Your task to perform on an android device: toggle notifications settings in the gmail app Image 0: 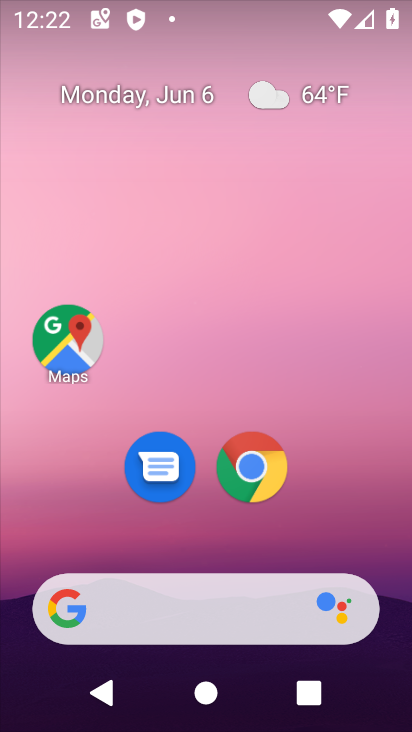
Step 0: drag from (328, 526) to (249, 42)
Your task to perform on an android device: toggle notifications settings in the gmail app Image 1: 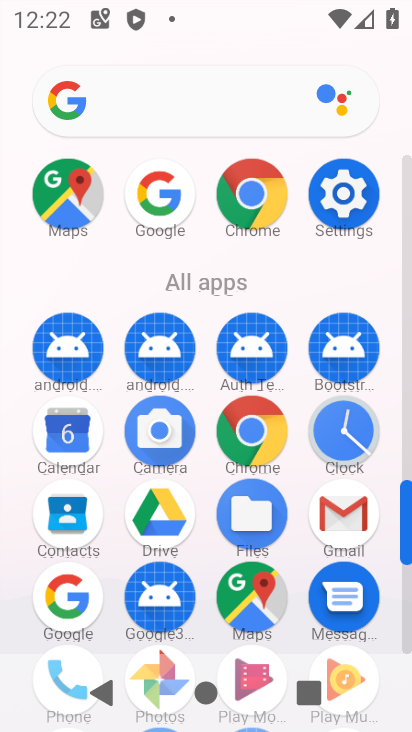
Step 1: click (343, 510)
Your task to perform on an android device: toggle notifications settings in the gmail app Image 2: 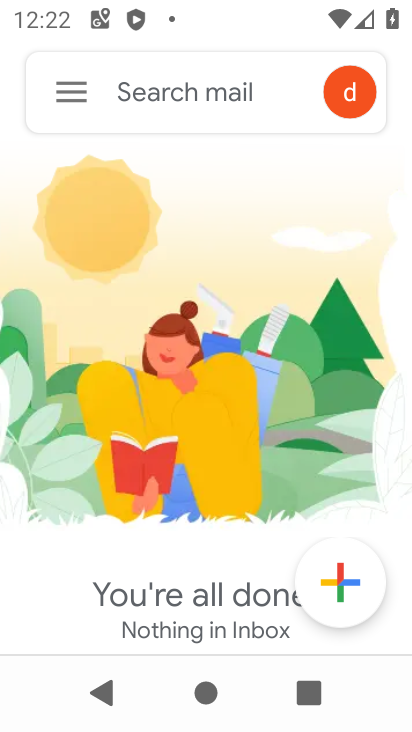
Step 2: click (71, 101)
Your task to perform on an android device: toggle notifications settings in the gmail app Image 3: 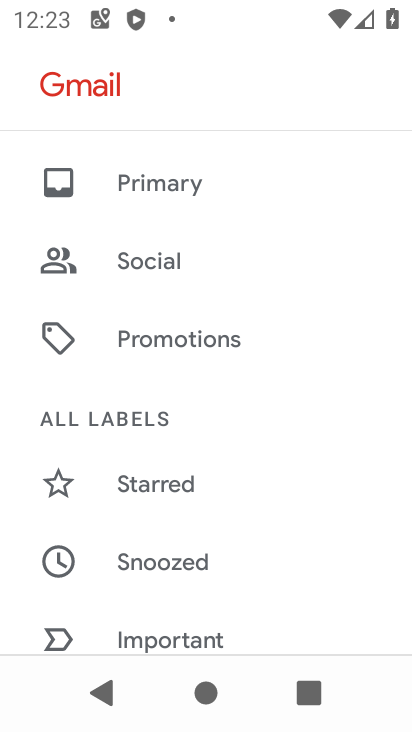
Step 3: drag from (212, 531) to (248, 432)
Your task to perform on an android device: toggle notifications settings in the gmail app Image 4: 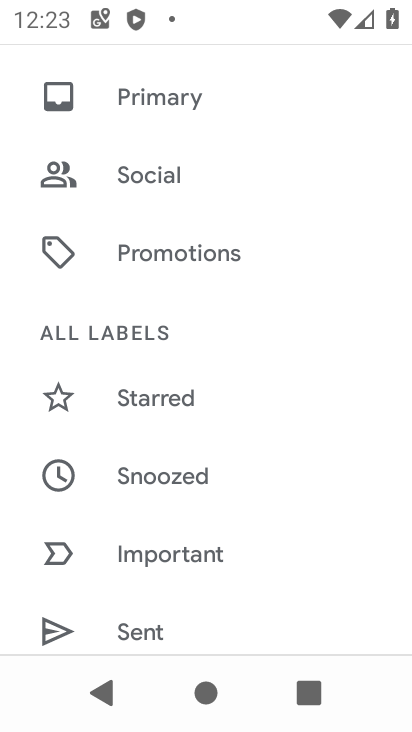
Step 4: drag from (214, 516) to (264, 424)
Your task to perform on an android device: toggle notifications settings in the gmail app Image 5: 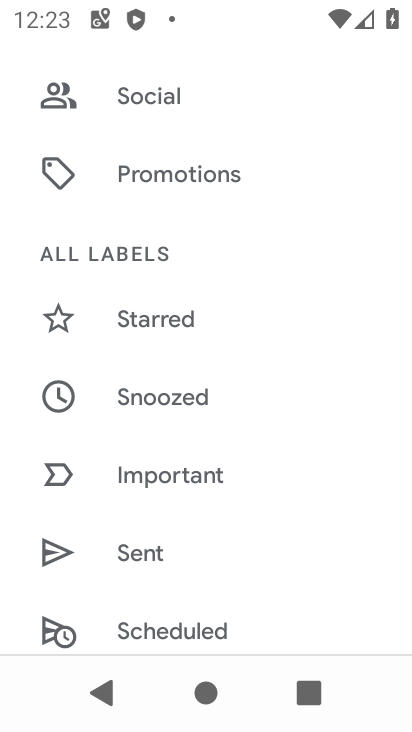
Step 5: drag from (183, 510) to (256, 415)
Your task to perform on an android device: toggle notifications settings in the gmail app Image 6: 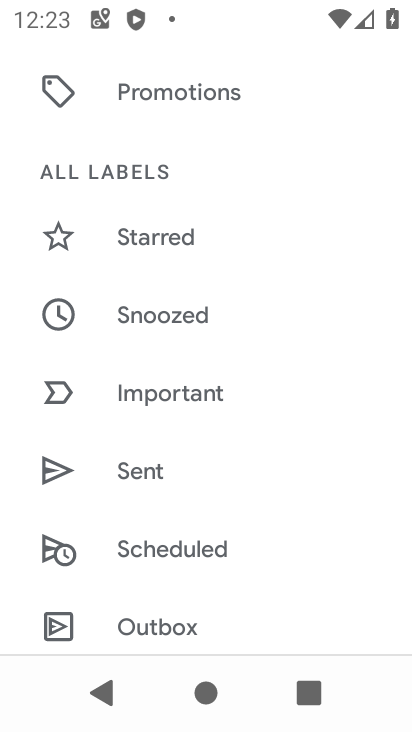
Step 6: drag from (183, 492) to (225, 422)
Your task to perform on an android device: toggle notifications settings in the gmail app Image 7: 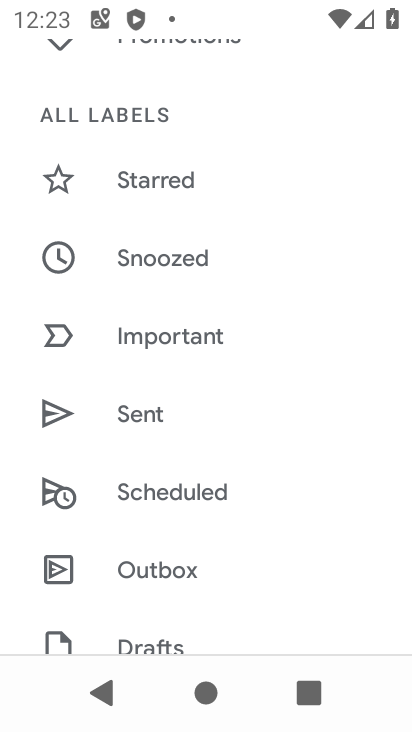
Step 7: drag from (162, 518) to (218, 422)
Your task to perform on an android device: toggle notifications settings in the gmail app Image 8: 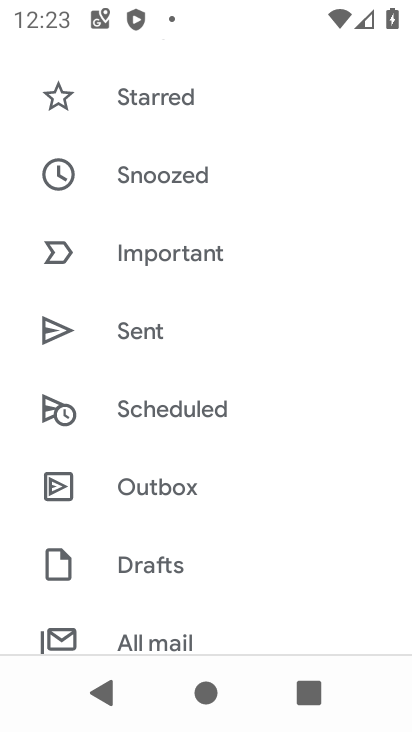
Step 8: drag from (151, 522) to (224, 421)
Your task to perform on an android device: toggle notifications settings in the gmail app Image 9: 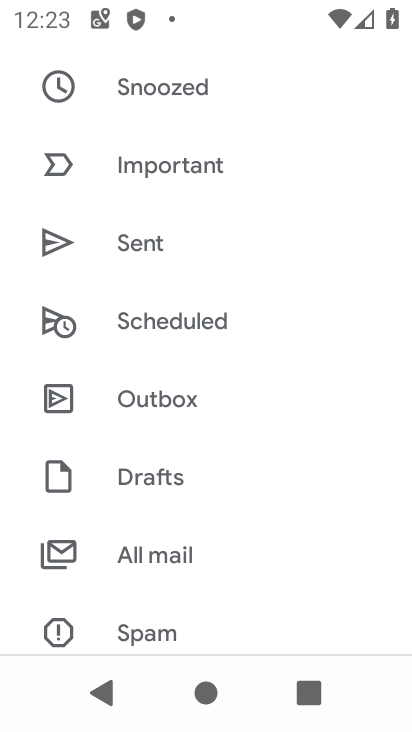
Step 9: drag from (149, 501) to (207, 406)
Your task to perform on an android device: toggle notifications settings in the gmail app Image 10: 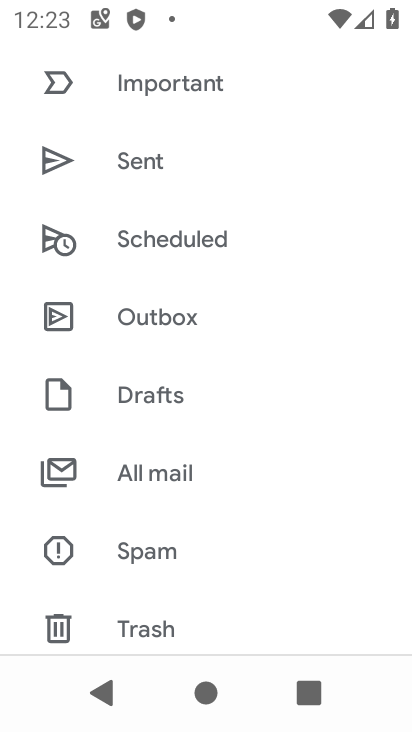
Step 10: drag from (177, 504) to (253, 417)
Your task to perform on an android device: toggle notifications settings in the gmail app Image 11: 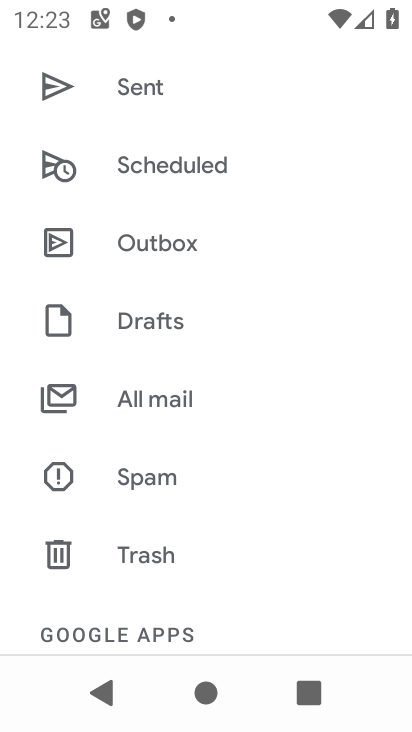
Step 11: drag from (191, 481) to (215, 419)
Your task to perform on an android device: toggle notifications settings in the gmail app Image 12: 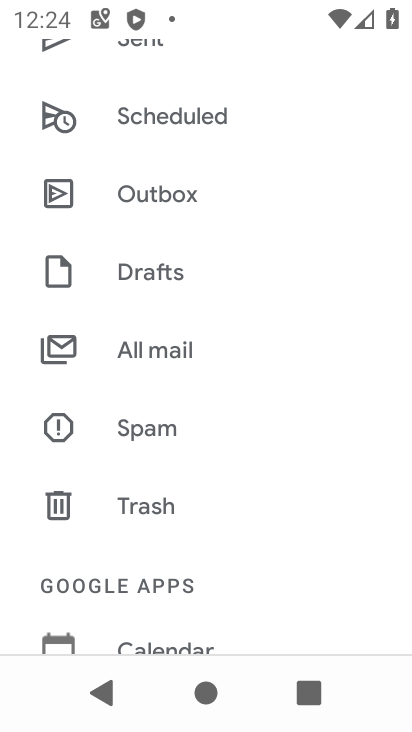
Step 12: drag from (157, 543) to (195, 375)
Your task to perform on an android device: toggle notifications settings in the gmail app Image 13: 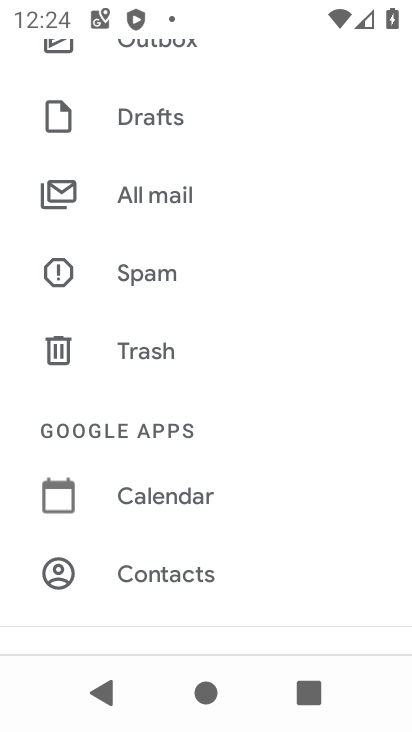
Step 13: drag from (167, 539) to (246, 403)
Your task to perform on an android device: toggle notifications settings in the gmail app Image 14: 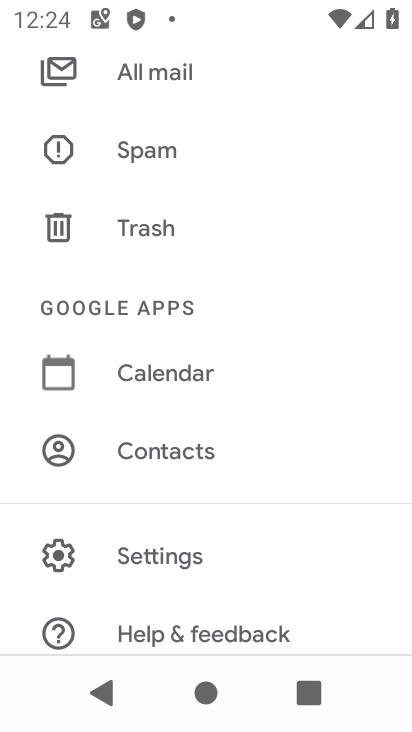
Step 14: click (182, 556)
Your task to perform on an android device: toggle notifications settings in the gmail app Image 15: 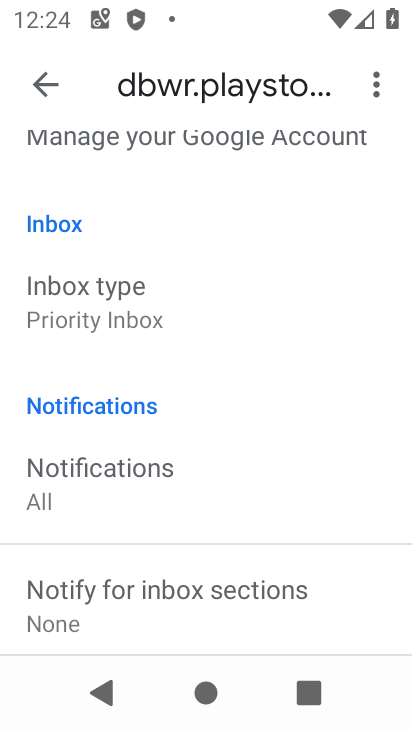
Step 15: drag from (129, 489) to (200, 393)
Your task to perform on an android device: toggle notifications settings in the gmail app Image 16: 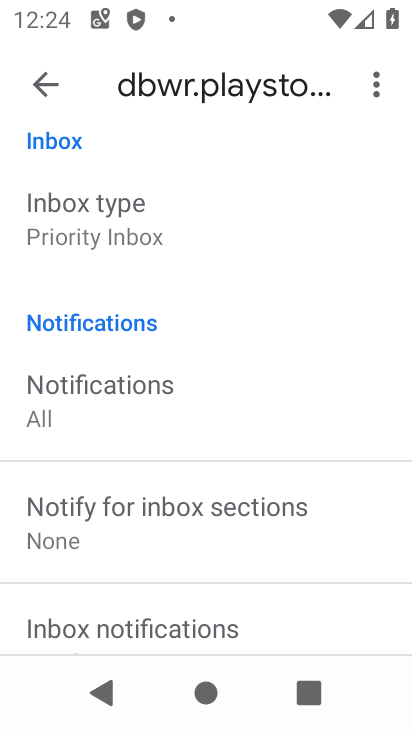
Step 16: drag from (112, 551) to (222, 431)
Your task to perform on an android device: toggle notifications settings in the gmail app Image 17: 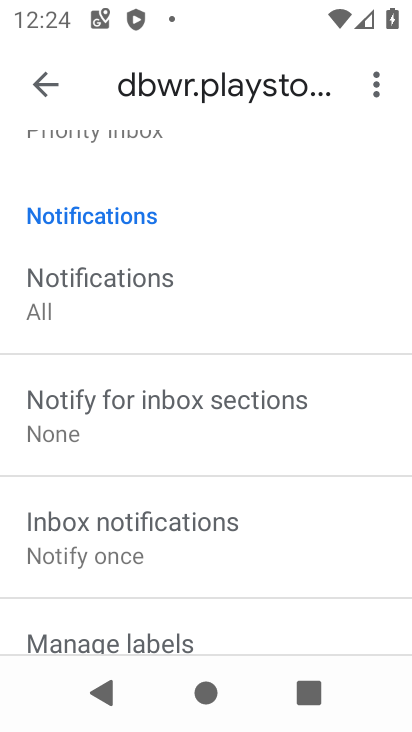
Step 17: drag from (178, 564) to (251, 449)
Your task to perform on an android device: toggle notifications settings in the gmail app Image 18: 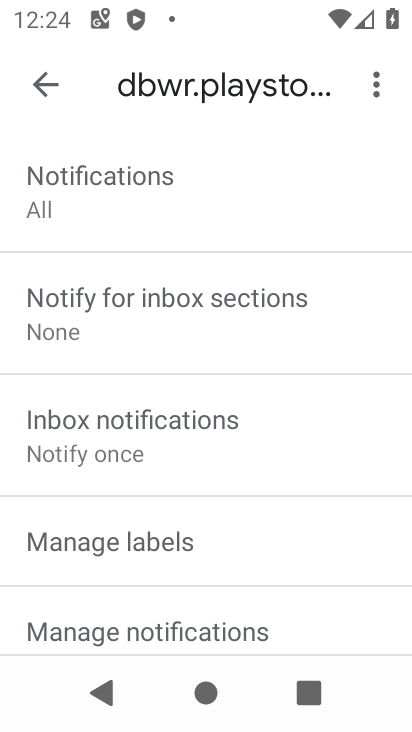
Step 18: drag from (187, 562) to (298, 432)
Your task to perform on an android device: toggle notifications settings in the gmail app Image 19: 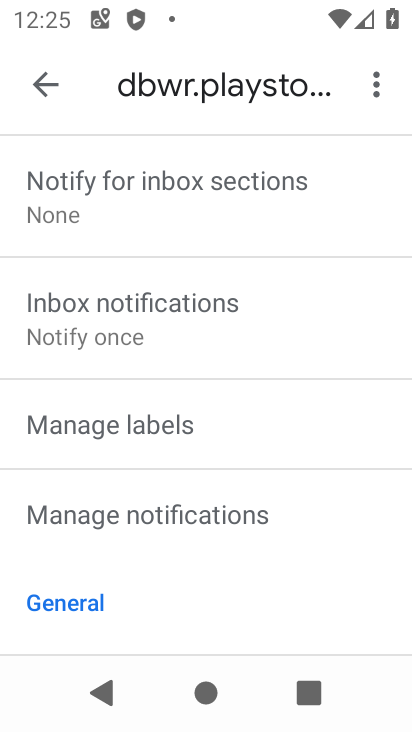
Step 19: click (200, 524)
Your task to perform on an android device: toggle notifications settings in the gmail app Image 20: 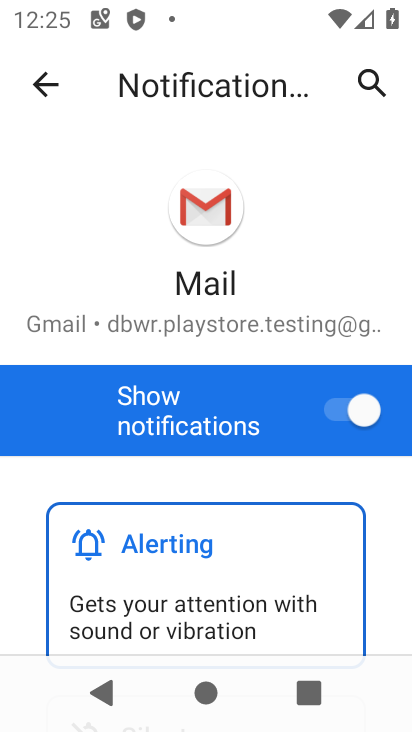
Step 20: click (336, 413)
Your task to perform on an android device: toggle notifications settings in the gmail app Image 21: 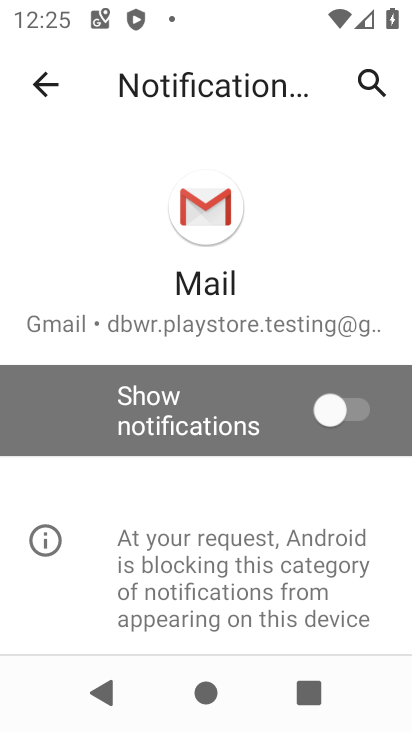
Step 21: task complete